Your task to perform on an android device: turn off data saver in the chrome app Image 0: 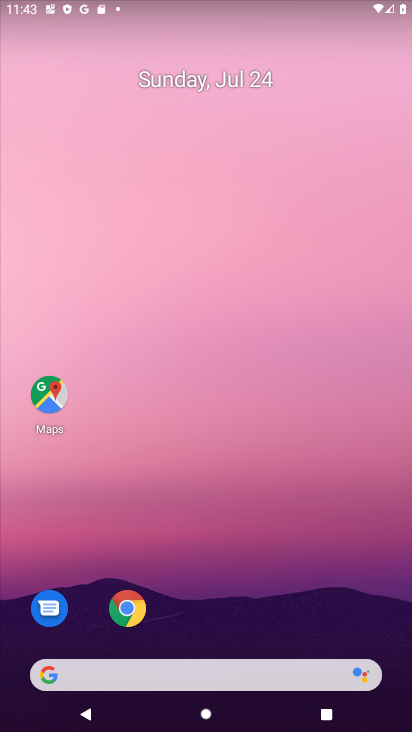
Step 0: drag from (272, 601) to (387, 6)
Your task to perform on an android device: turn off data saver in the chrome app Image 1: 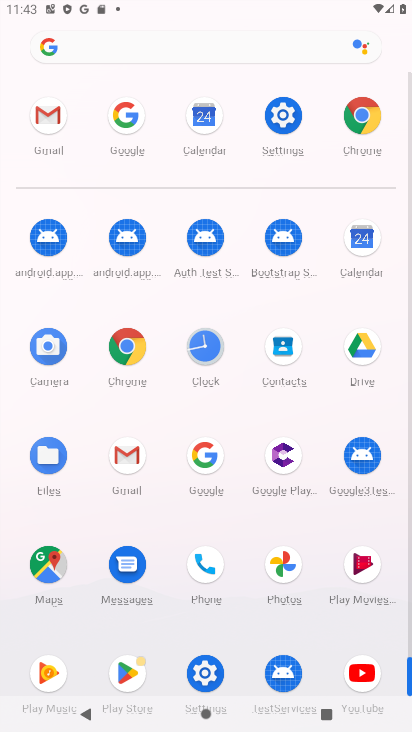
Step 1: click (364, 114)
Your task to perform on an android device: turn off data saver in the chrome app Image 2: 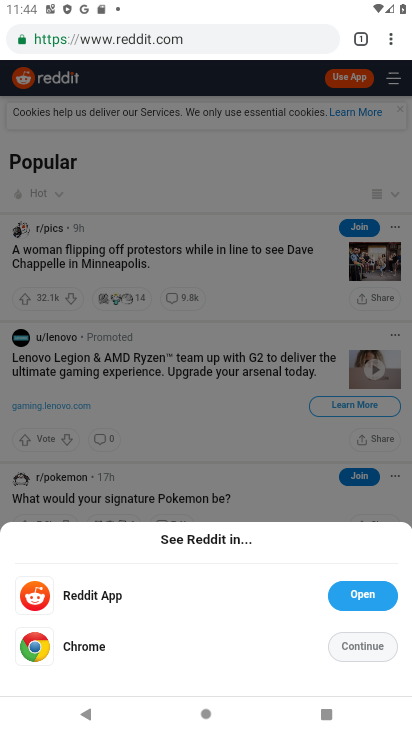
Step 2: drag from (384, 39) to (273, 461)
Your task to perform on an android device: turn off data saver in the chrome app Image 3: 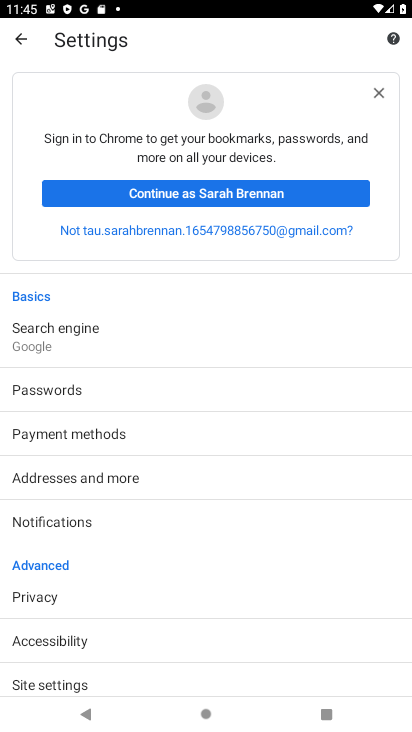
Step 3: press home button
Your task to perform on an android device: turn off data saver in the chrome app Image 4: 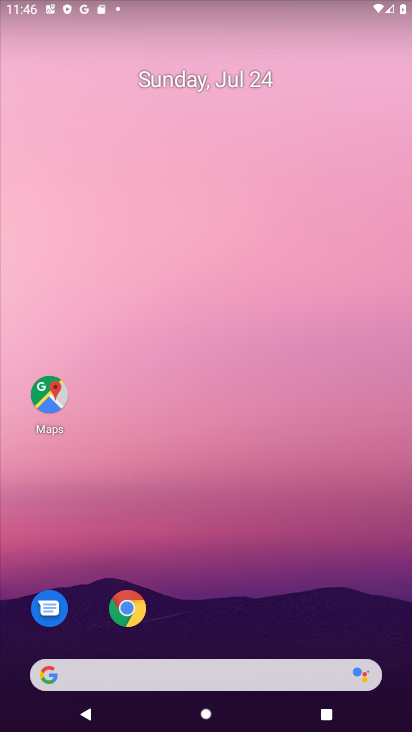
Step 4: drag from (289, 527) to (261, 2)
Your task to perform on an android device: turn off data saver in the chrome app Image 5: 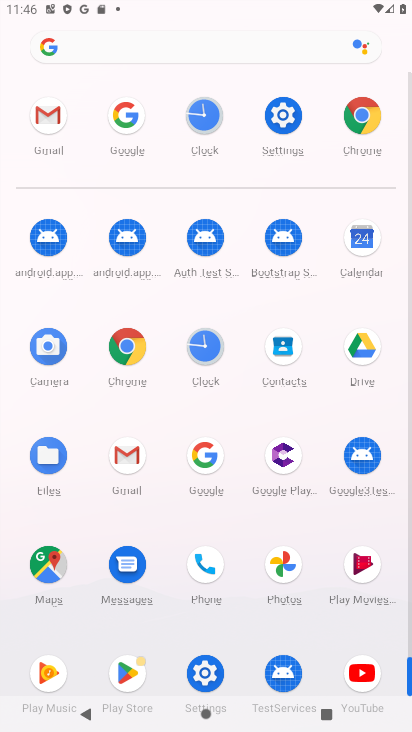
Step 5: click (367, 115)
Your task to perform on an android device: turn off data saver in the chrome app Image 6: 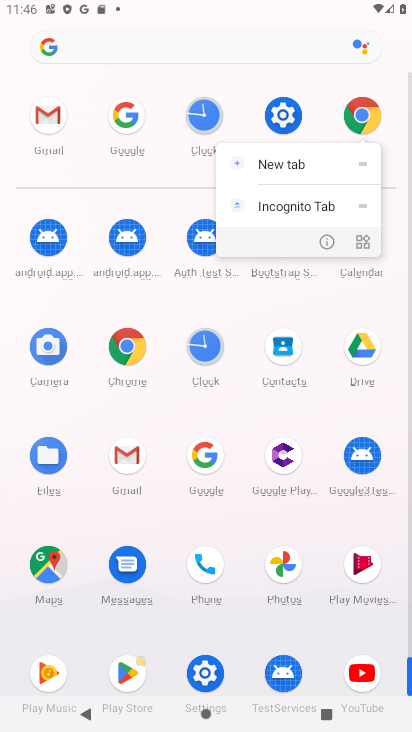
Step 6: click (355, 99)
Your task to perform on an android device: turn off data saver in the chrome app Image 7: 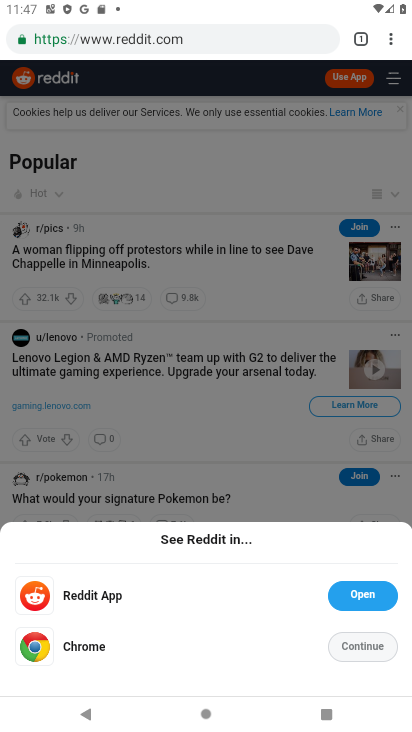
Step 7: drag from (386, 46) to (254, 475)
Your task to perform on an android device: turn off data saver in the chrome app Image 8: 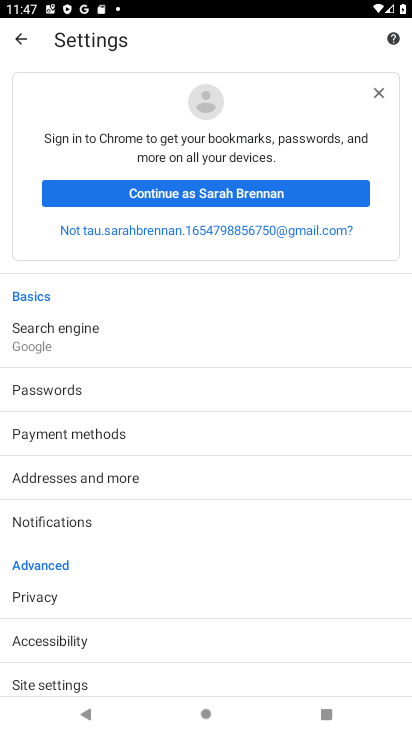
Step 8: drag from (185, 662) to (232, 14)
Your task to perform on an android device: turn off data saver in the chrome app Image 9: 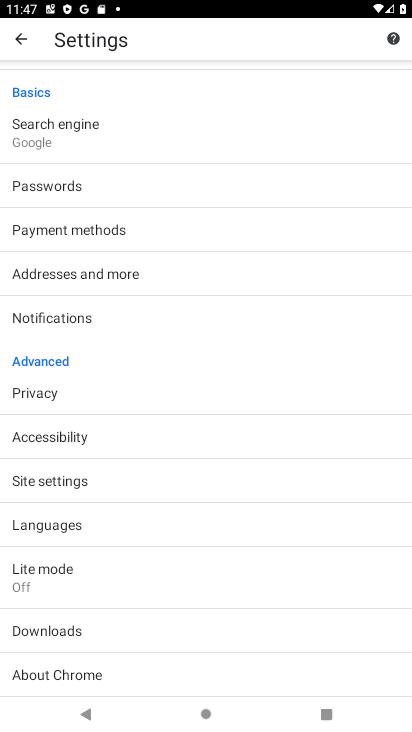
Step 9: click (75, 589)
Your task to perform on an android device: turn off data saver in the chrome app Image 10: 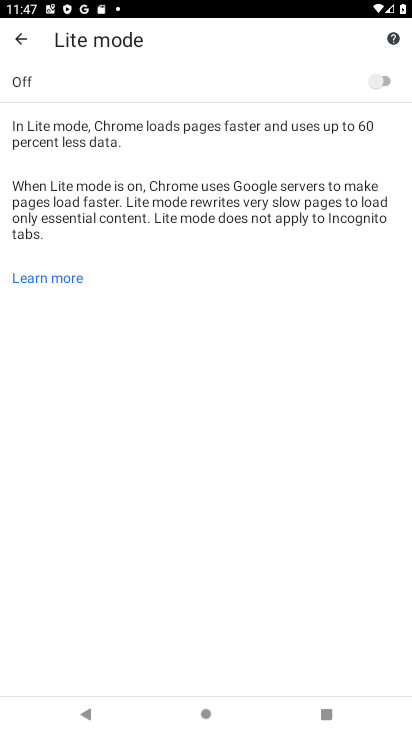
Step 10: task complete